Your task to perform on an android device: create a new album in the google photos Image 0: 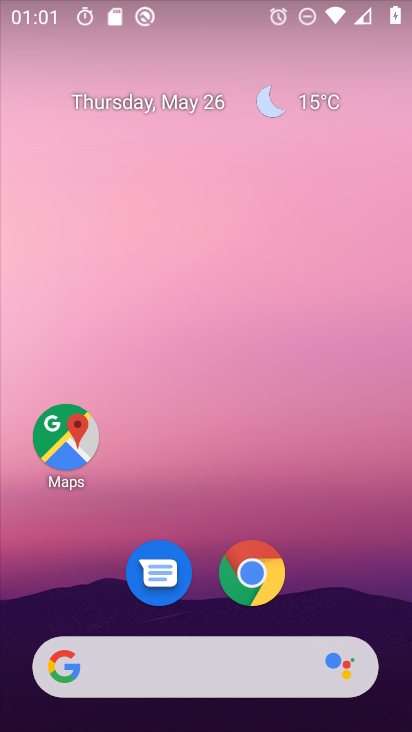
Step 0: drag from (360, 607) to (369, 2)
Your task to perform on an android device: create a new album in the google photos Image 1: 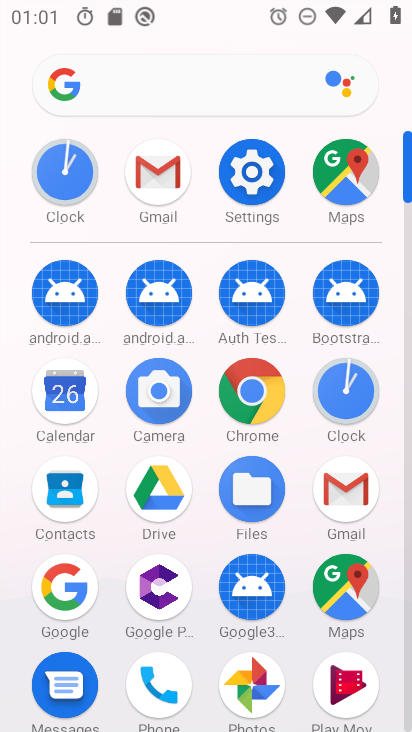
Step 1: click (248, 680)
Your task to perform on an android device: create a new album in the google photos Image 2: 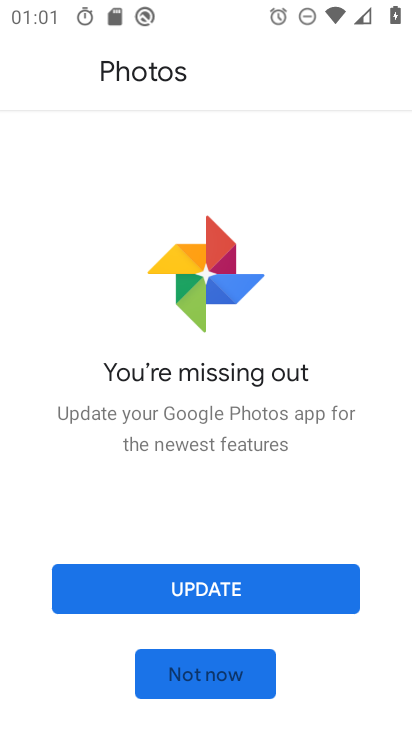
Step 2: click (248, 681)
Your task to perform on an android device: create a new album in the google photos Image 3: 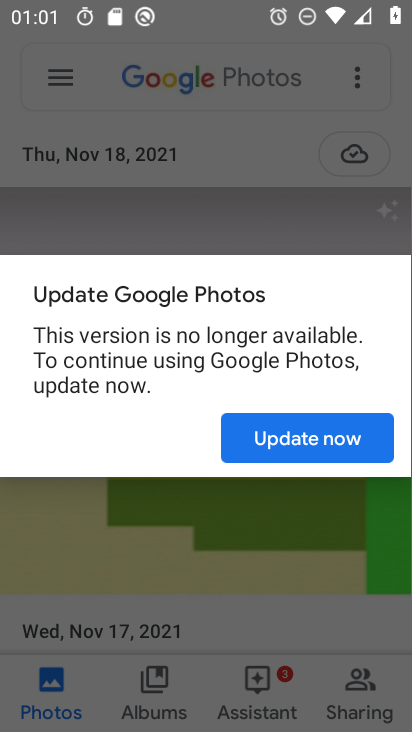
Step 3: click (292, 436)
Your task to perform on an android device: create a new album in the google photos Image 4: 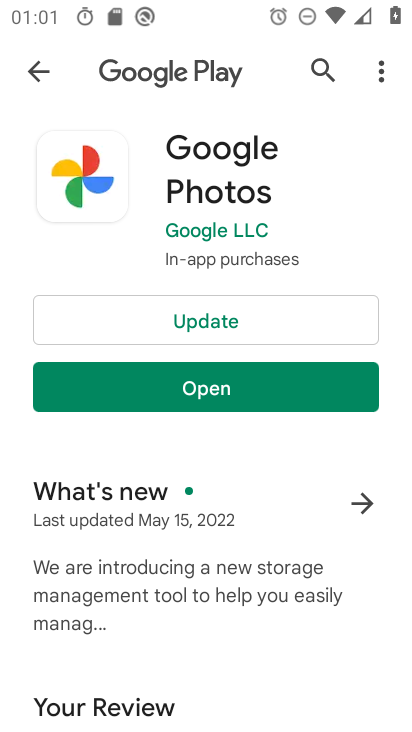
Step 4: click (197, 400)
Your task to perform on an android device: create a new album in the google photos Image 5: 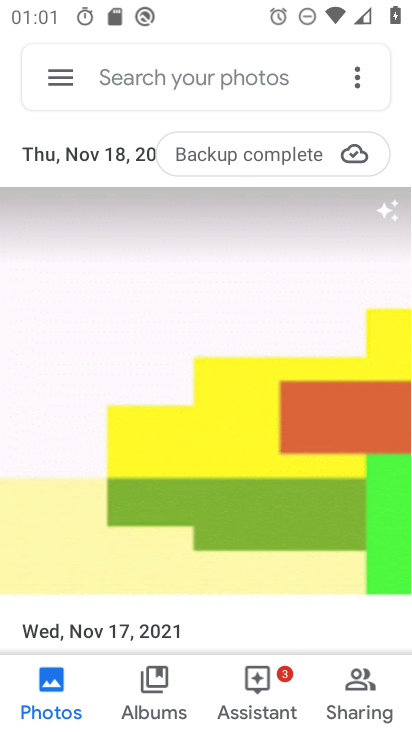
Step 5: drag from (195, 577) to (165, 218)
Your task to perform on an android device: create a new album in the google photos Image 6: 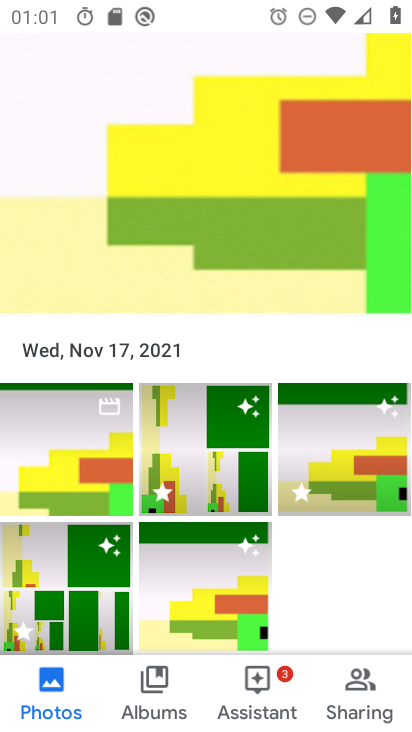
Step 6: click (93, 555)
Your task to perform on an android device: create a new album in the google photos Image 7: 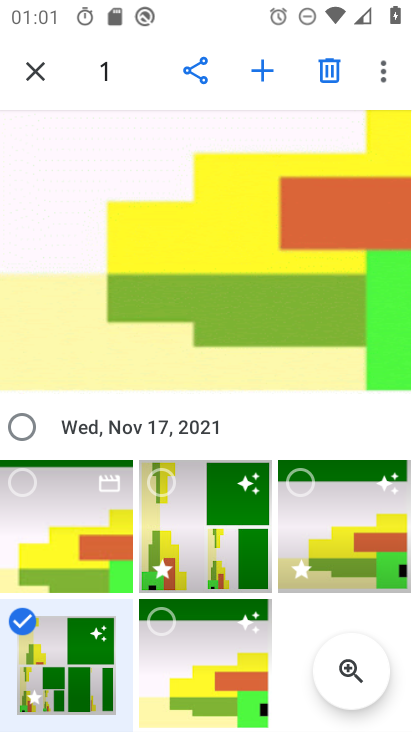
Step 7: click (256, 67)
Your task to perform on an android device: create a new album in the google photos Image 8: 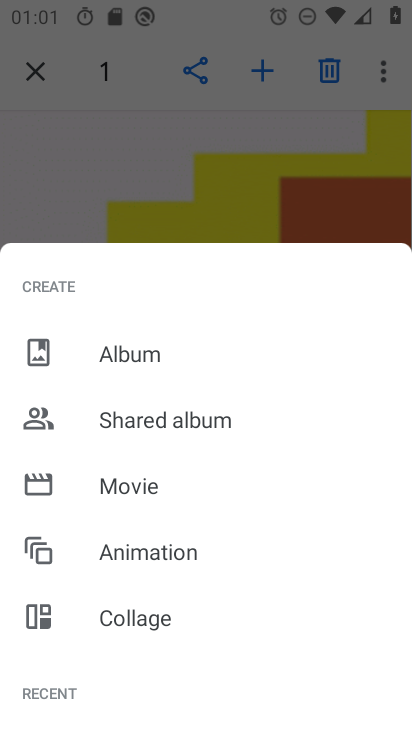
Step 8: click (101, 350)
Your task to perform on an android device: create a new album in the google photos Image 9: 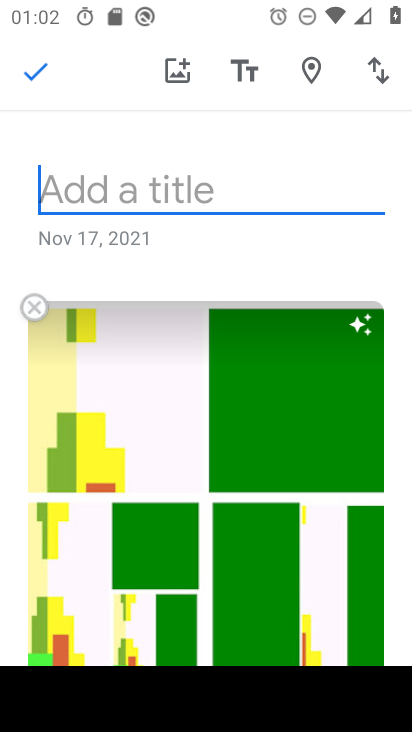
Step 9: click (103, 195)
Your task to perform on an android device: create a new album in the google photos Image 10: 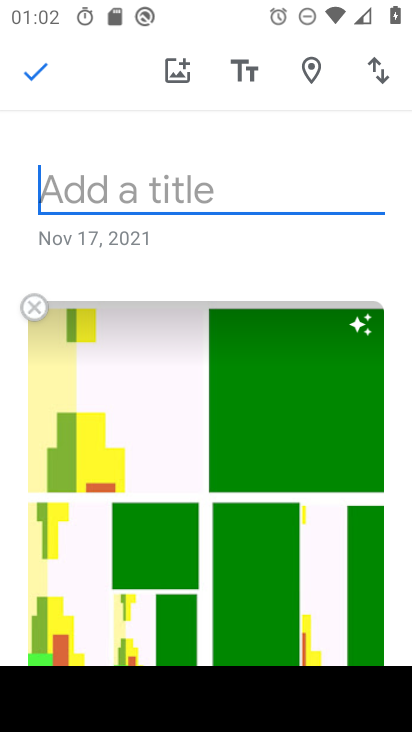
Step 10: type "memories  "
Your task to perform on an android device: create a new album in the google photos Image 11: 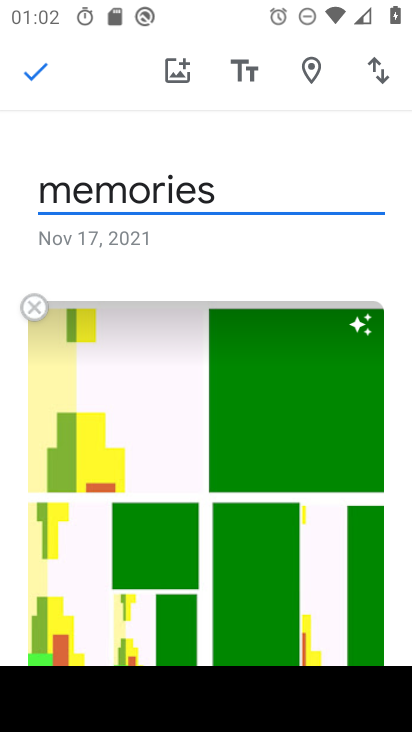
Step 11: click (25, 75)
Your task to perform on an android device: create a new album in the google photos Image 12: 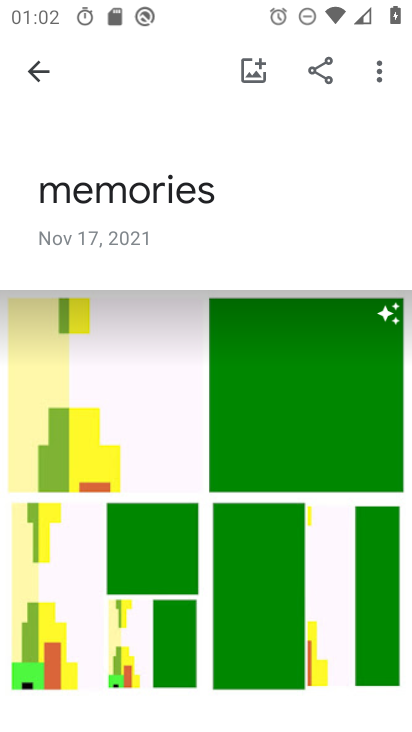
Step 12: task complete